Your task to perform on an android device: toggle improve location accuracy Image 0: 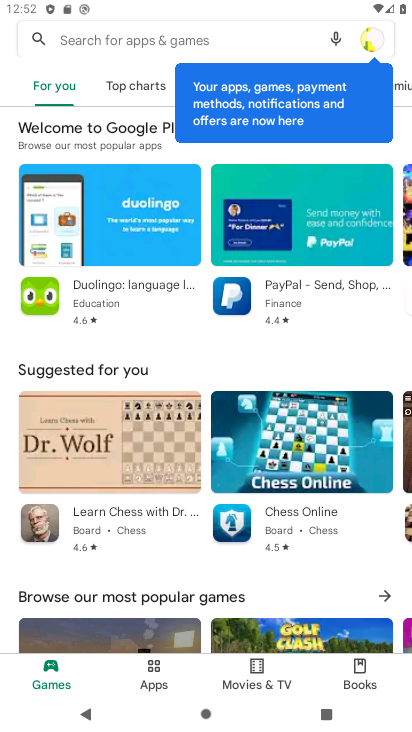
Step 0: press home button
Your task to perform on an android device: toggle improve location accuracy Image 1: 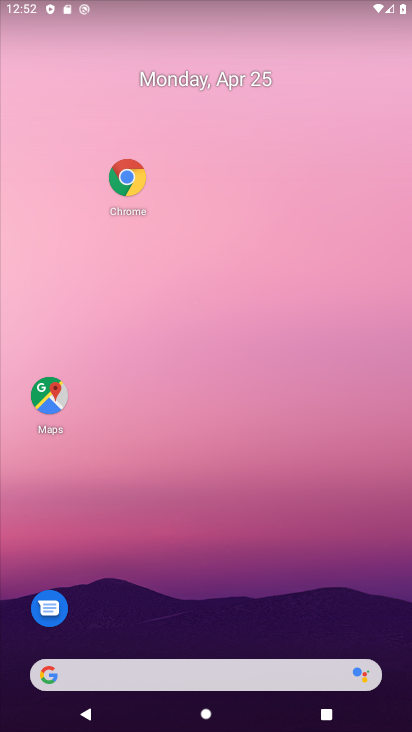
Step 1: drag from (231, 324) to (273, 112)
Your task to perform on an android device: toggle improve location accuracy Image 2: 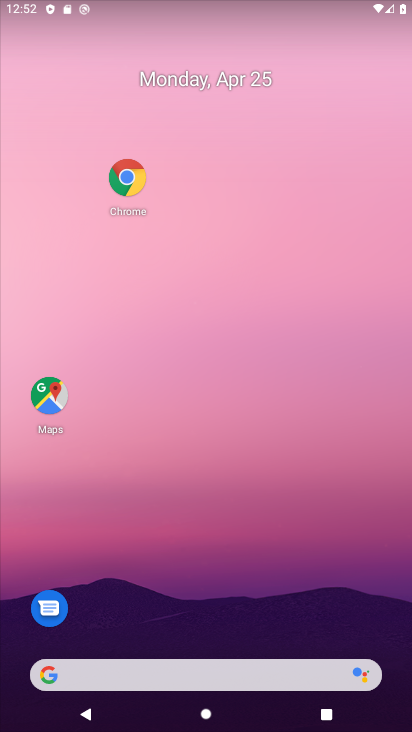
Step 2: drag from (241, 559) to (263, 139)
Your task to perform on an android device: toggle improve location accuracy Image 3: 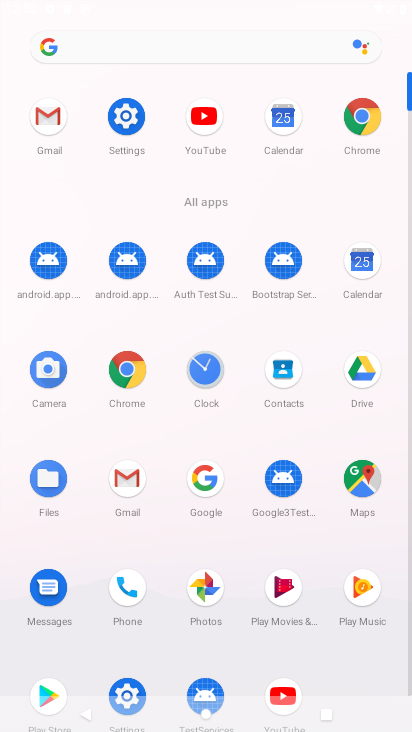
Step 3: click (130, 680)
Your task to perform on an android device: toggle improve location accuracy Image 4: 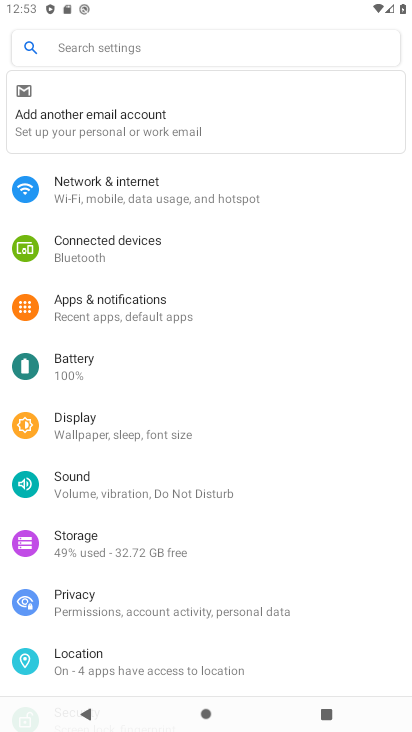
Step 4: drag from (182, 395) to (211, 195)
Your task to perform on an android device: toggle improve location accuracy Image 5: 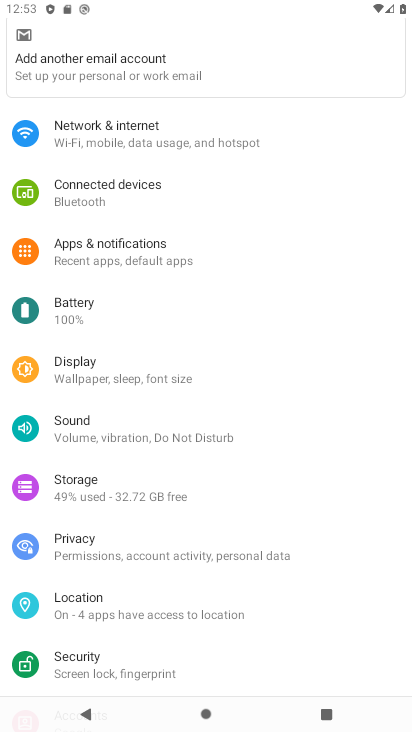
Step 5: click (114, 600)
Your task to perform on an android device: toggle improve location accuracy Image 6: 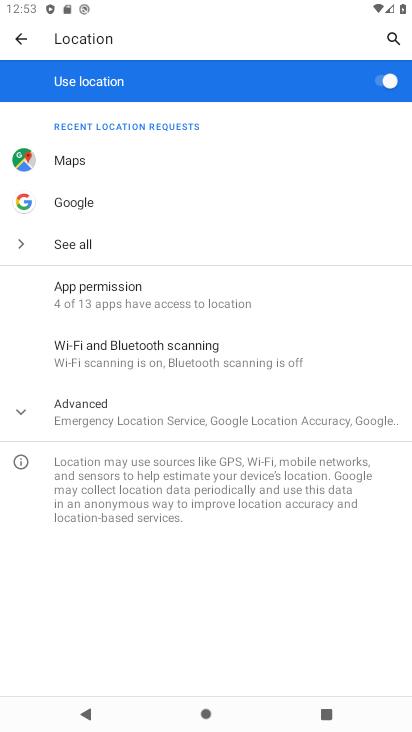
Step 6: click (110, 289)
Your task to perform on an android device: toggle improve location accuracy Image 7: 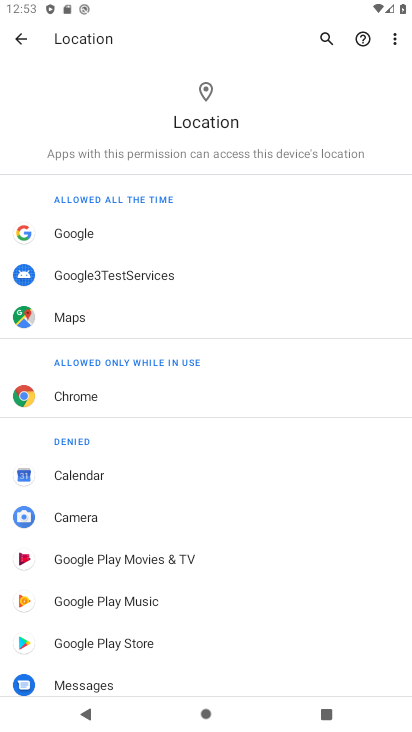
Step 7: click (21, 40)
Your task to perform on an android device: toggle improve location accuracy Image 8: 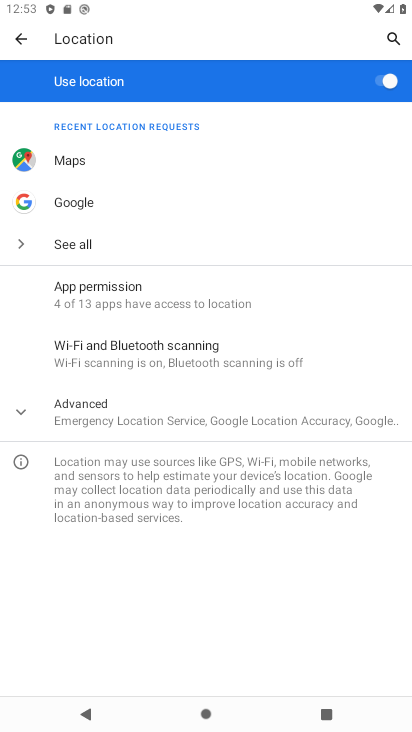
Step 8: click (139, 424)
Your task to perform on an android device: toggle improve location accuracy Image 9: 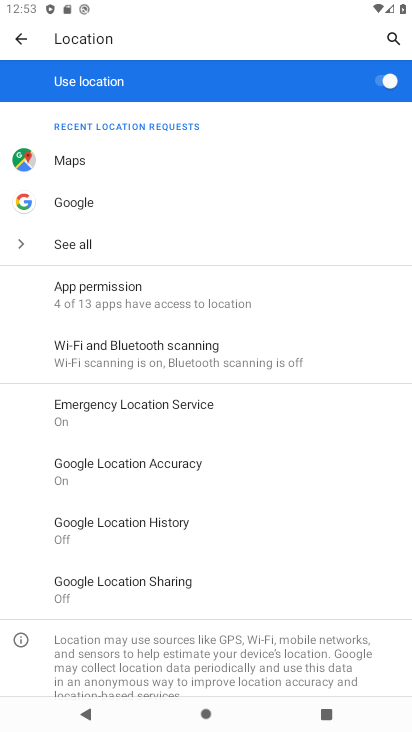
Step 9: click (156, 472)
Your task to perform on an android device: toggle improve location accuracy Image 10: 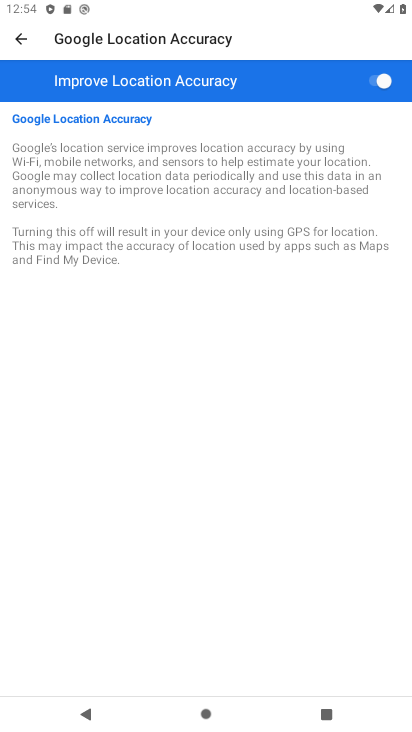
Step 10: click (369, 75)
Your task to perform on an android device: toggle improve location accuracy Image 11: 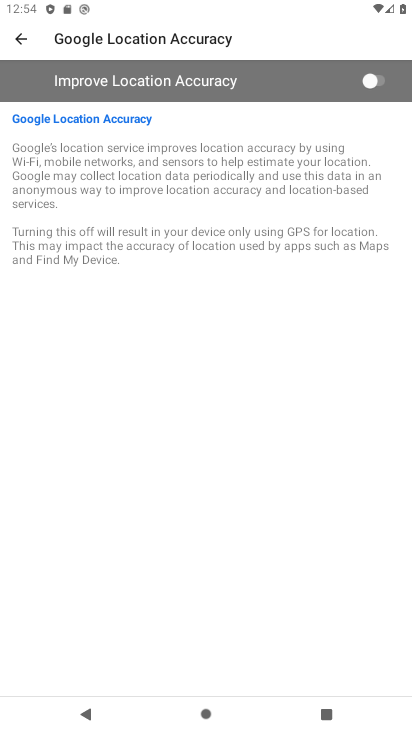
Step 11: task complete